Your task to perform on an android device: Search for flights from Tokyo to NYC Image 0: 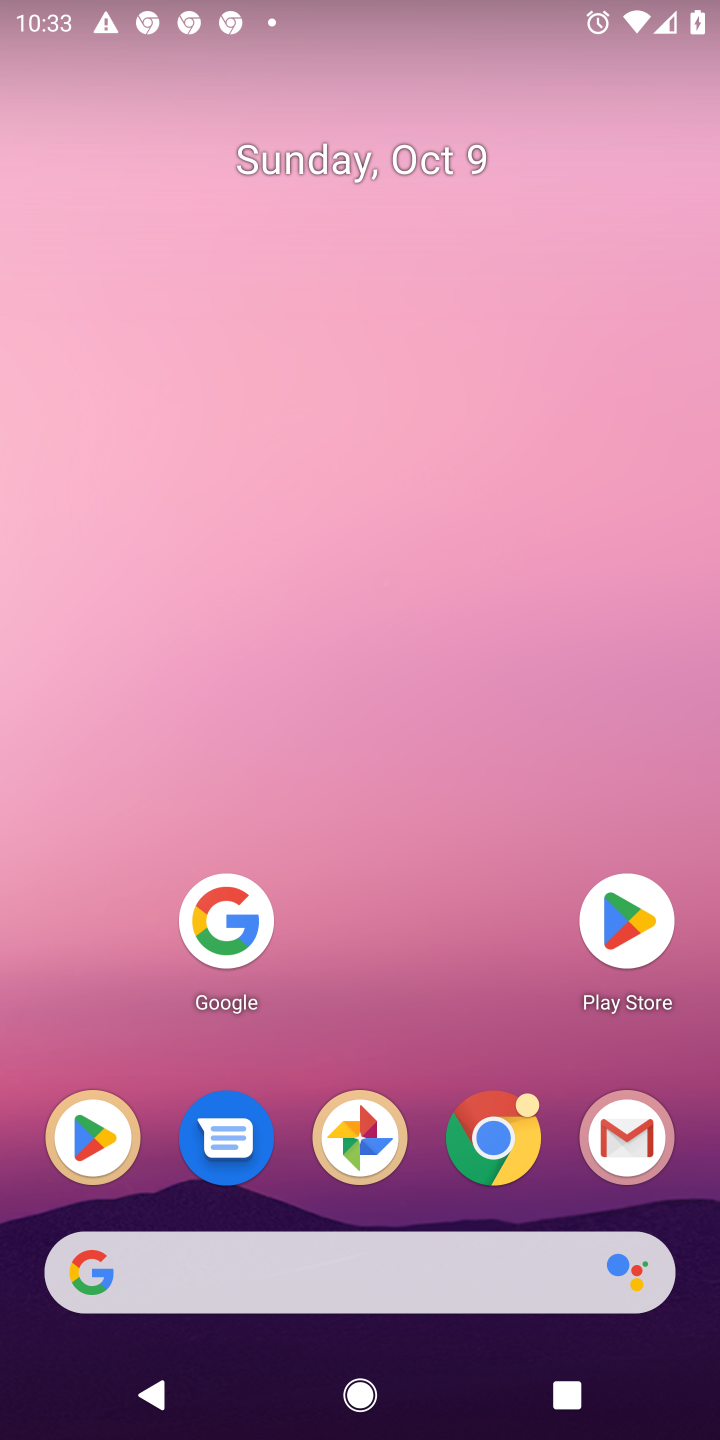
Step 0: click (217, 912)
Your task to perform on an android device: Search for flights from Tokyo to NYC Image 1: 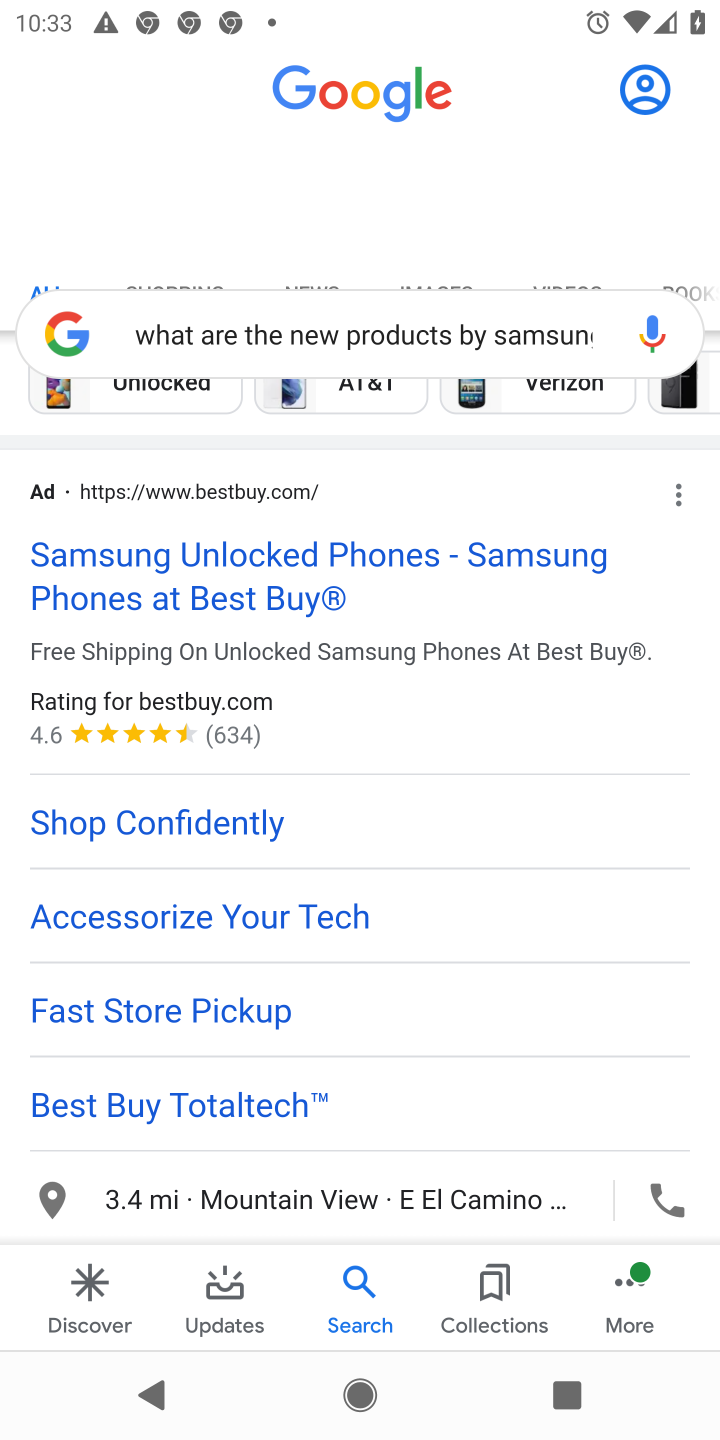
Step 1: click (212, 906)
Your task to perform on an android device: Search for flights from Tokyo to NYC Image 2: 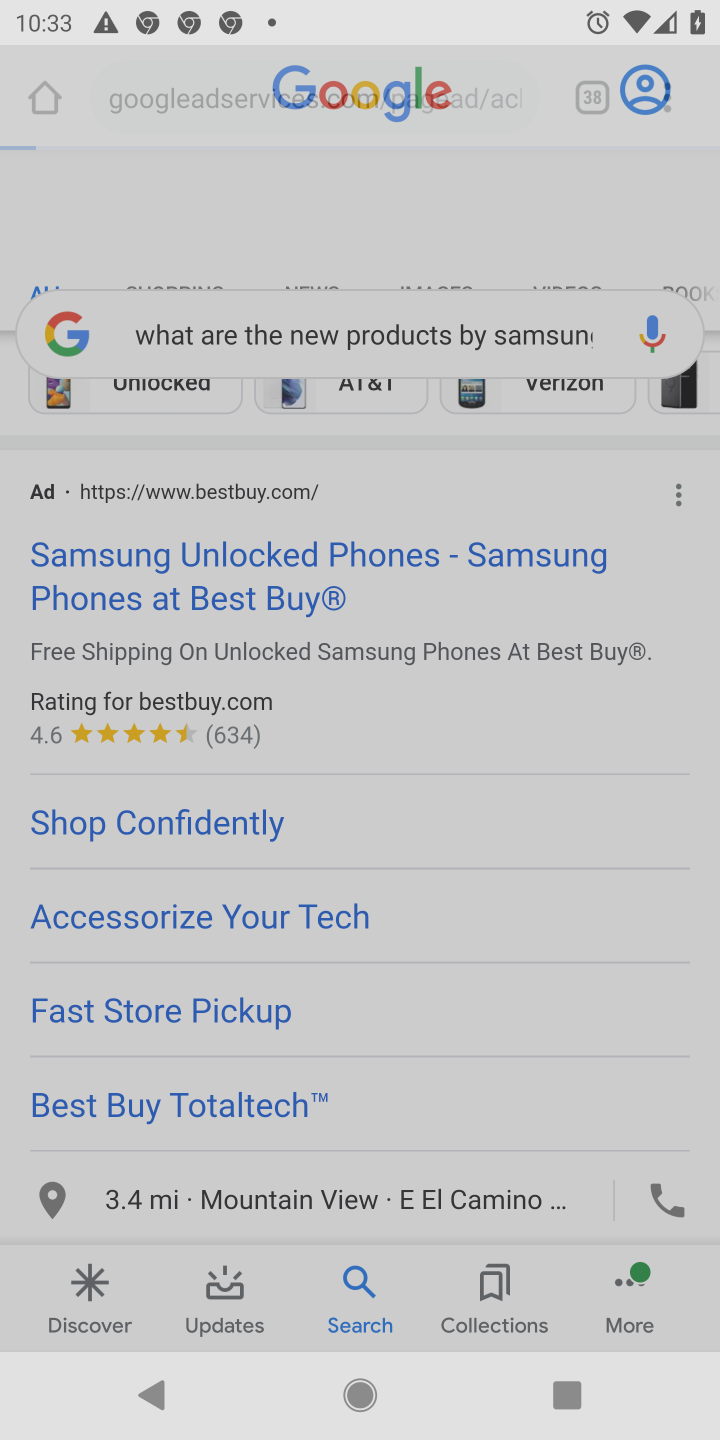
Step 2: click (400, 362)
Your task to perform on an android device: Search for flights from Tokyo to NYC Image 3: 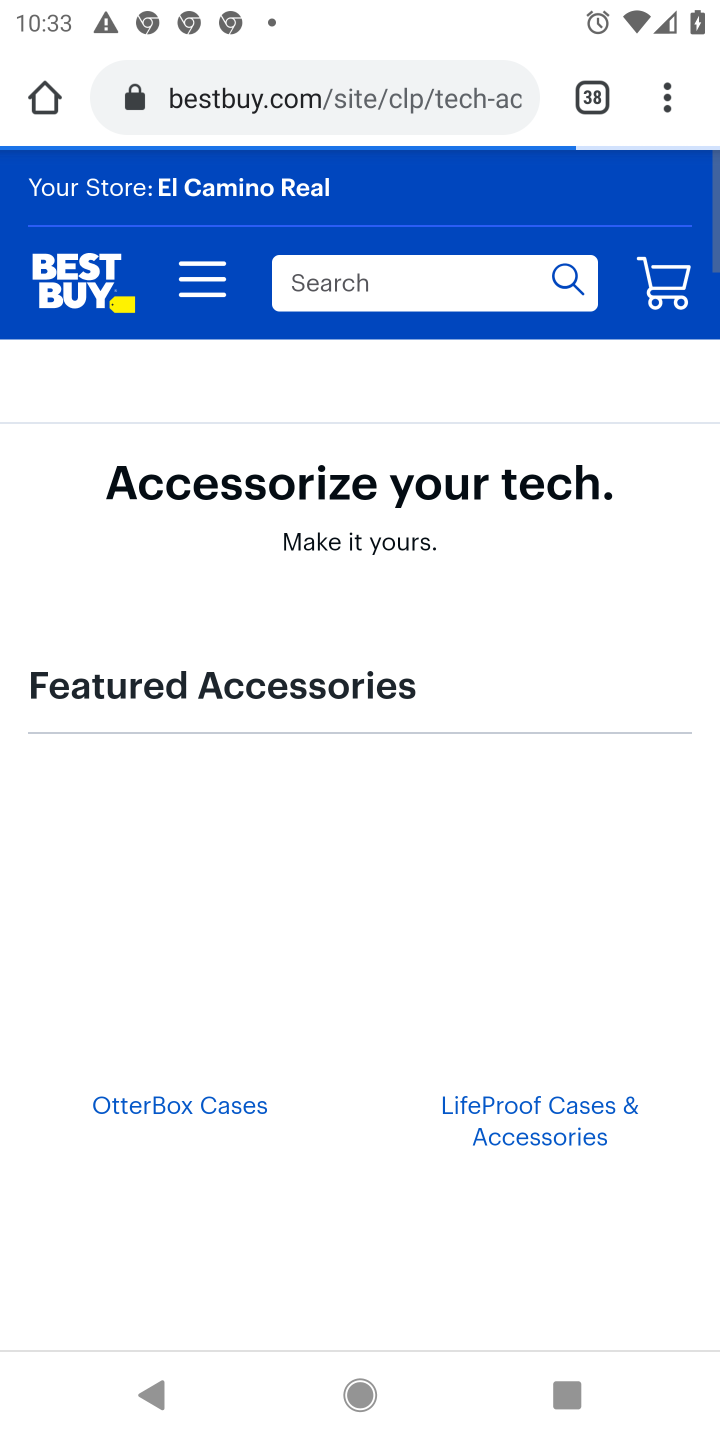
Step 3: press back button
Your task to perform on an android device: Search for flights from Tokyo to NYC Image 4: 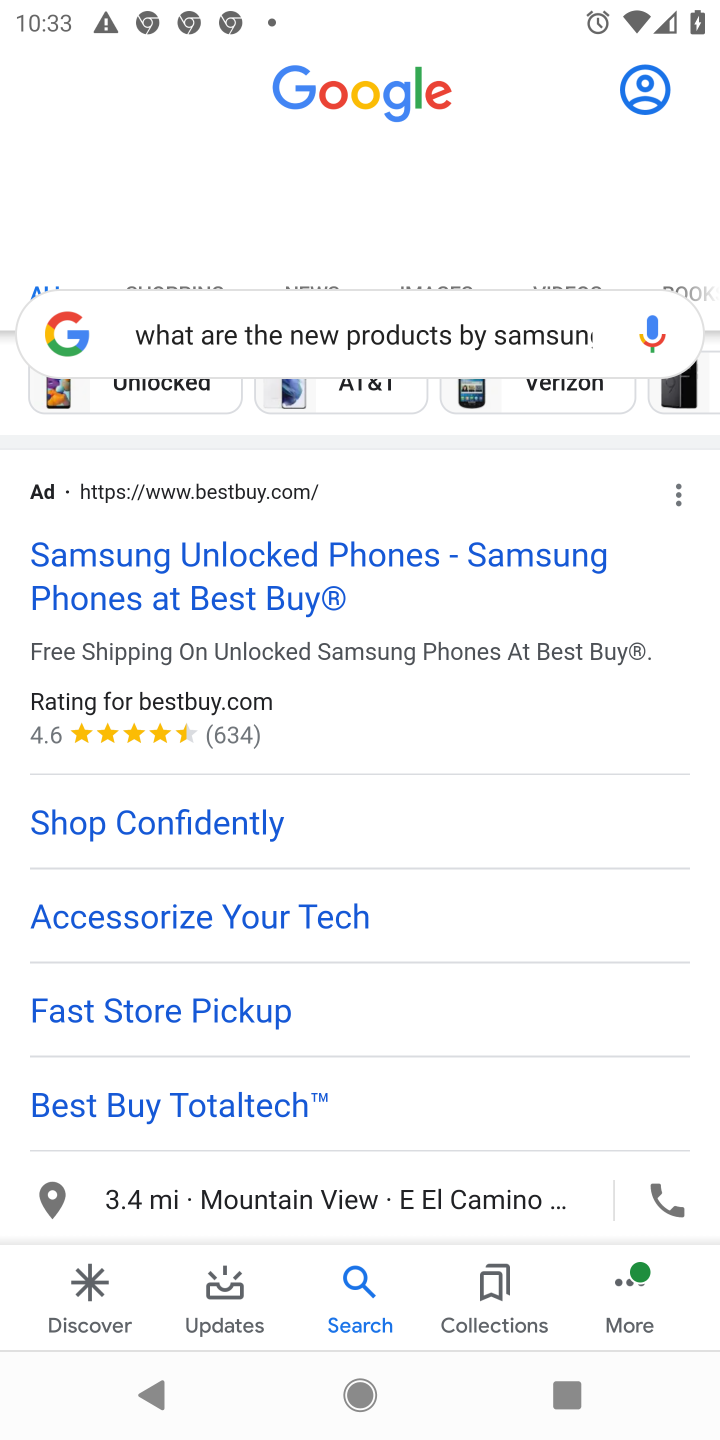
Step 4: click (502, 317)
Your task to perform on an android device: Search for flights from Tokyo to NYC Image 5: 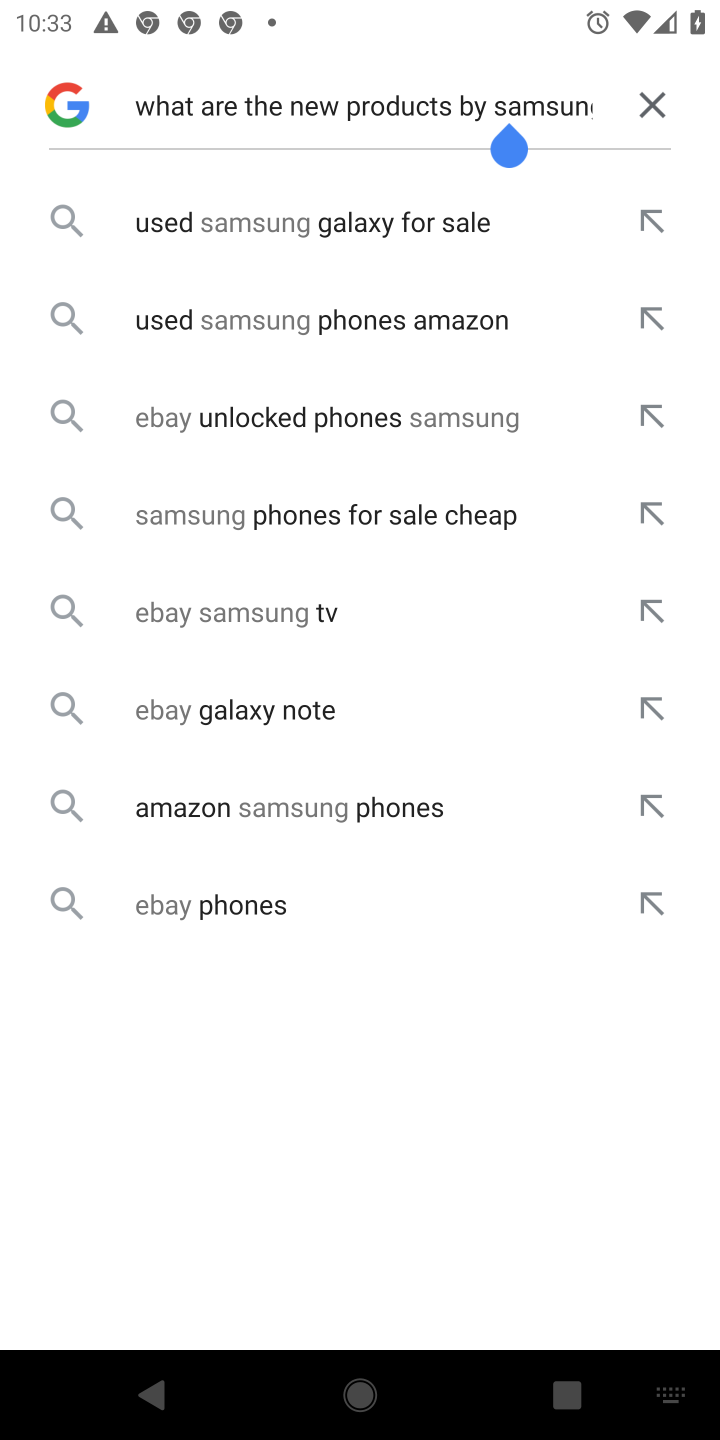
Step 5: click (642, 100)
Your task to perform on an android device: Search for flights from Tokyo to NYC Image 6: 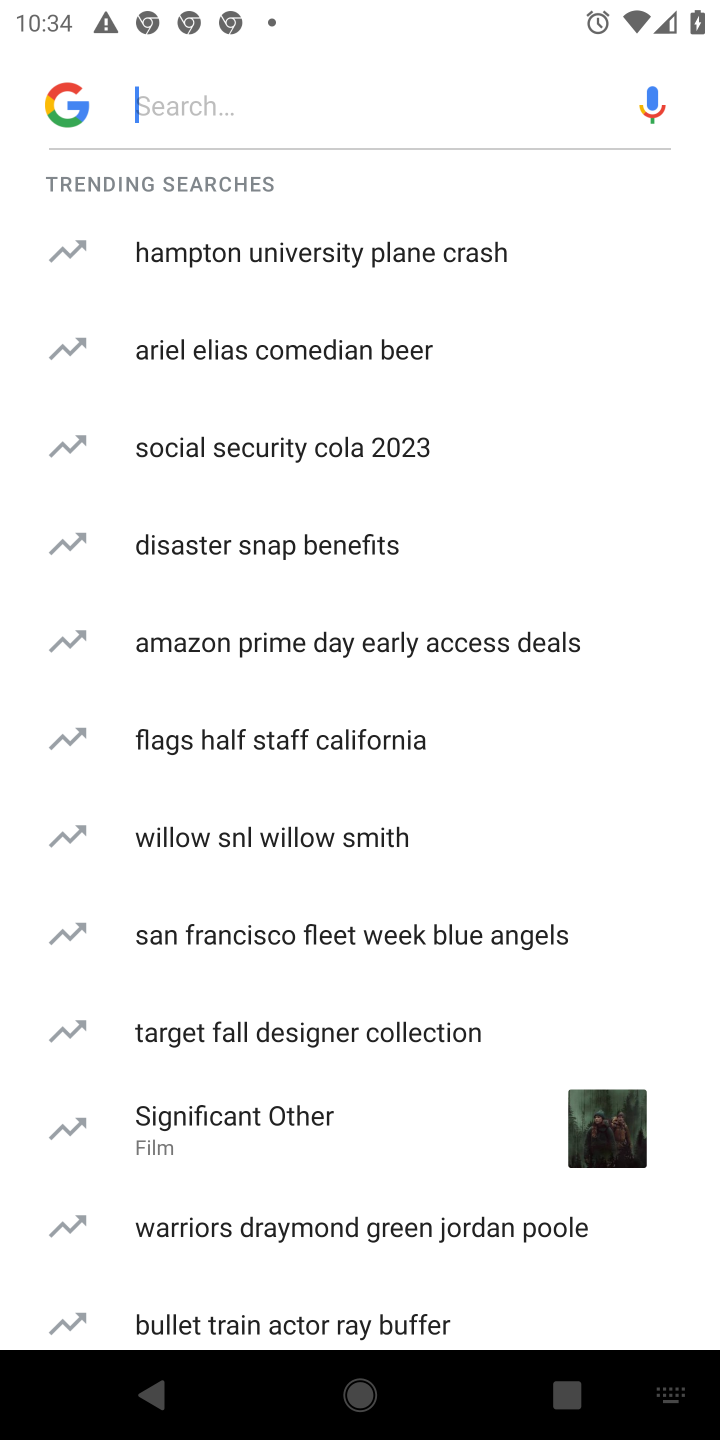
Step 6: click (339, 110)
Your task to perform on an android device: Search for flights from Tokyo to NYC Image 7: 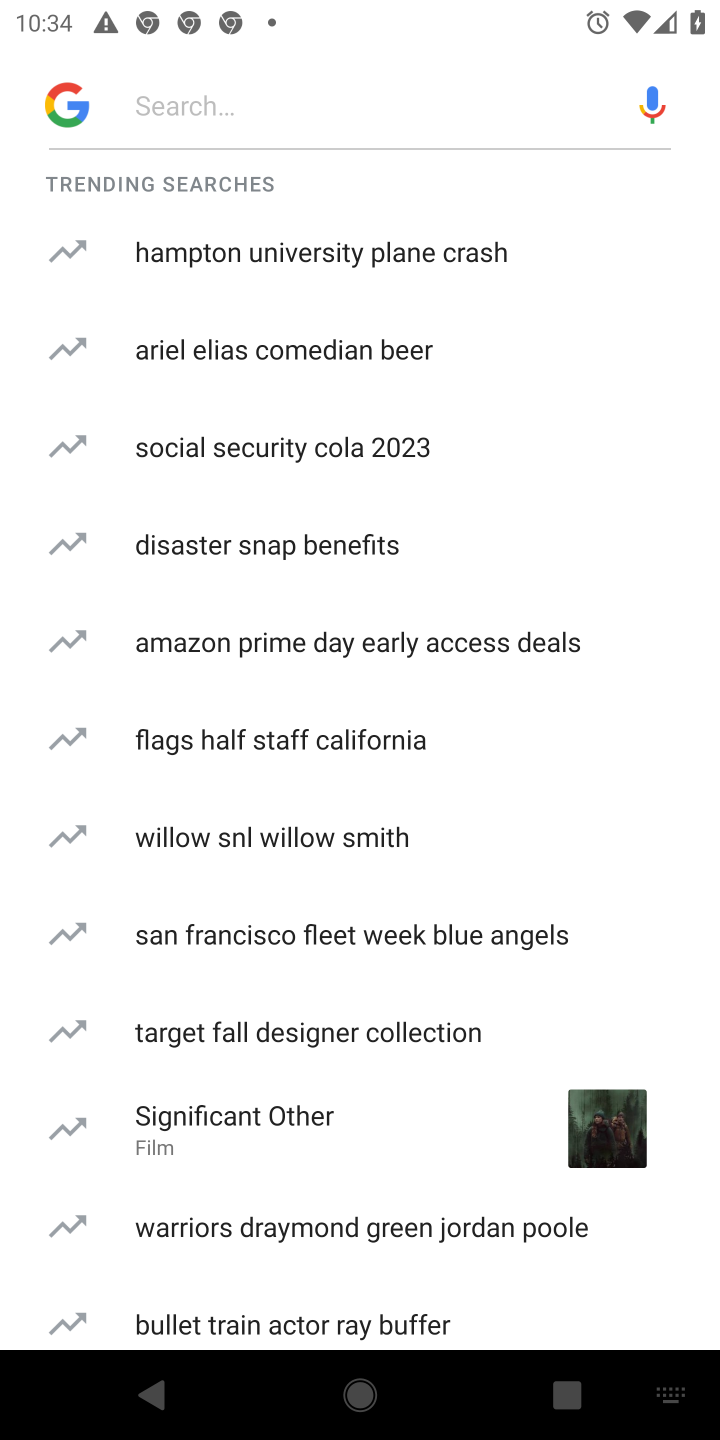
Step 7: type "Search for flights from Tokyo to NYC "
Your task to perform on an android device: Search for flights from Tokyo to NYC Image 8: 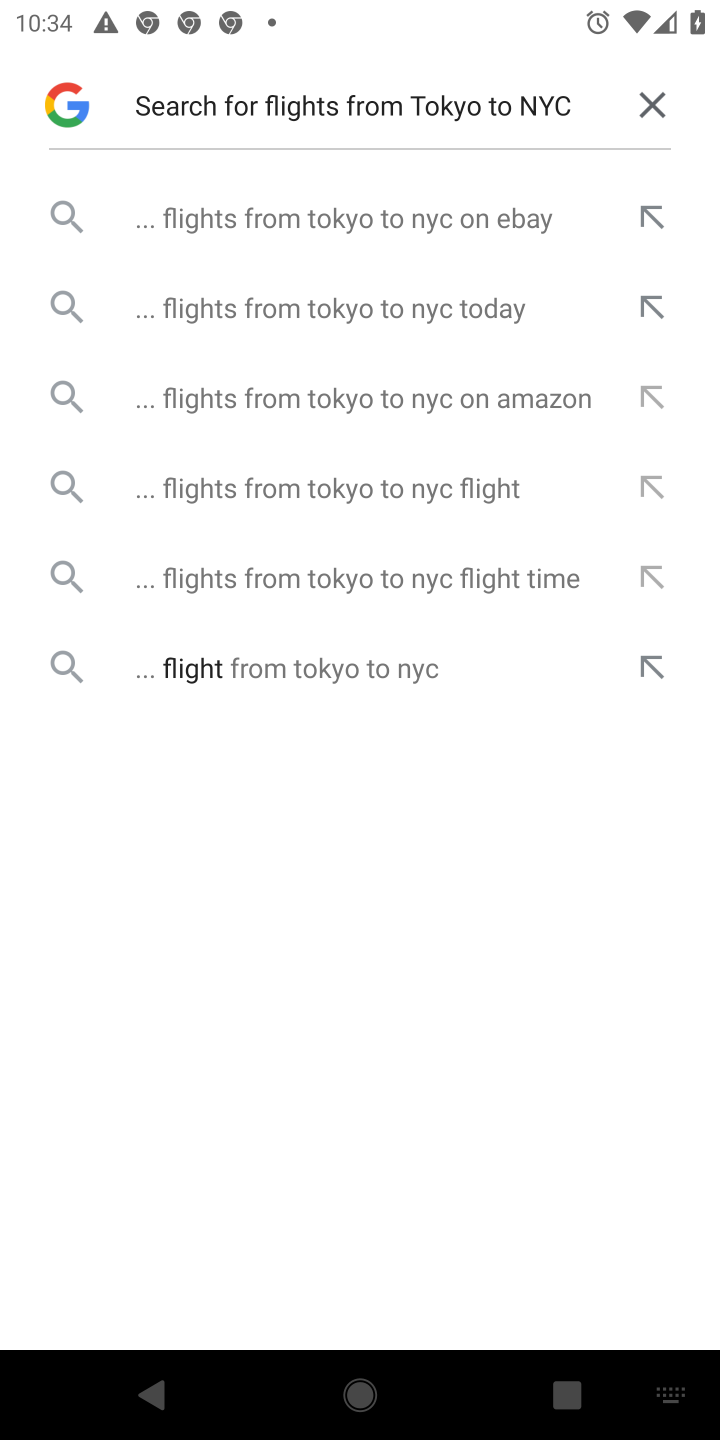
Step 8: click (427, 322)
Your task to perform on an android device: Search for flights from Tokyo to NYC Image 9: 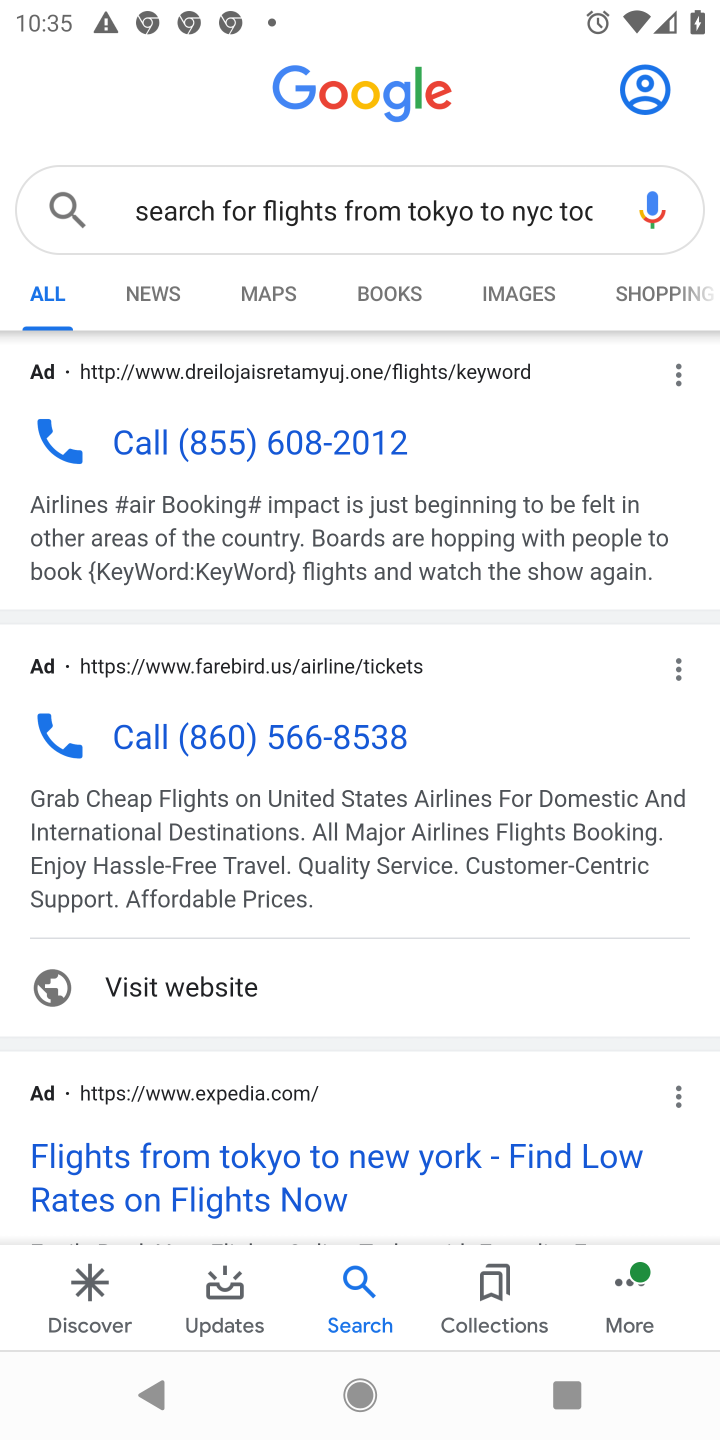
Step 9: click (279, 1157)
Your task to perform on an android device: Search for flights from Tokyo to NYC Image 10: 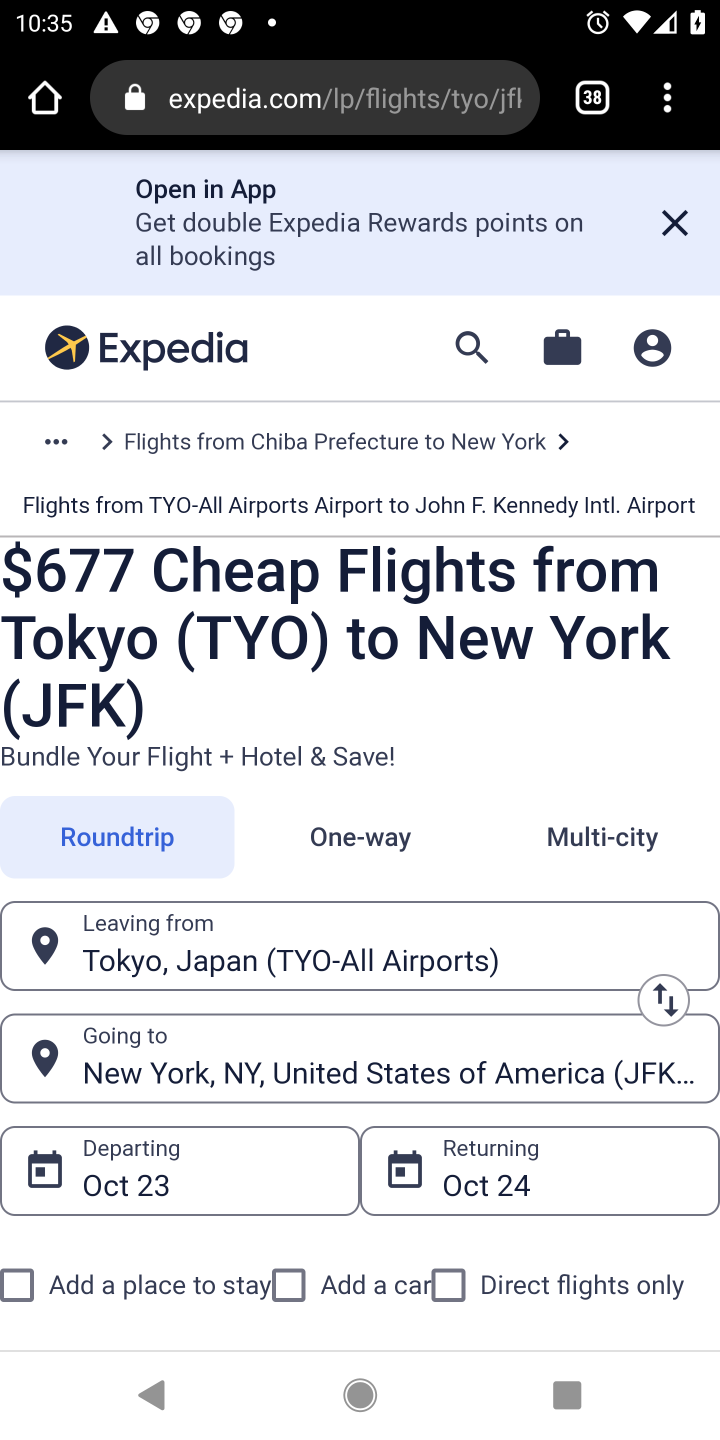
Step 10: task complete